Your task to perform on an android device: check the backup settings in the google photos Image 0: 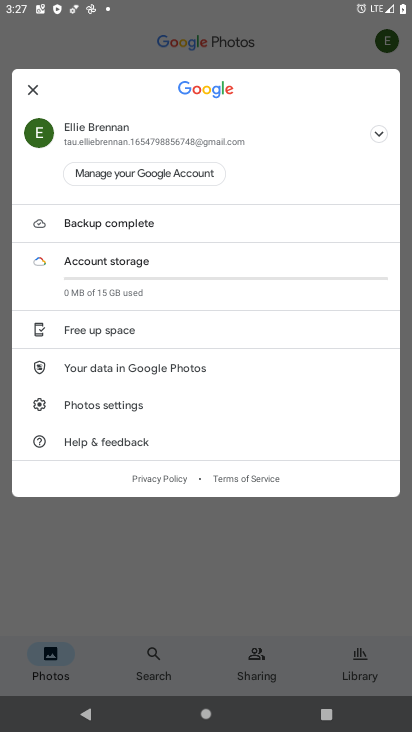
Step 0: press home button
Your task to perform on an android device: check the backup settings in the google photos Image 1: 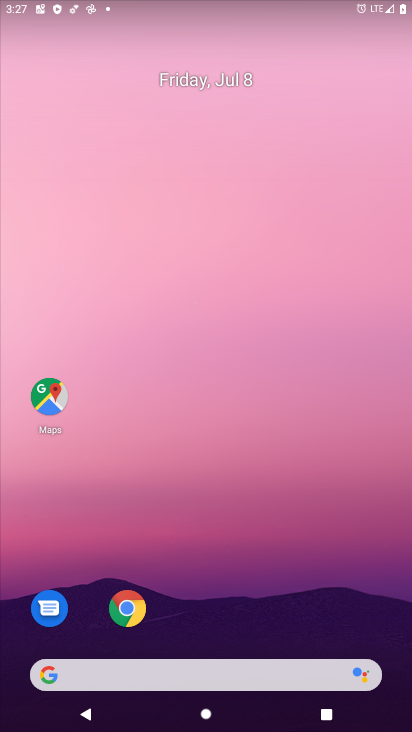
Step 1: drag from (295, 547) to (258, 3)
Your task to perform on an android device: check the backup settings in the google photos Image 2: 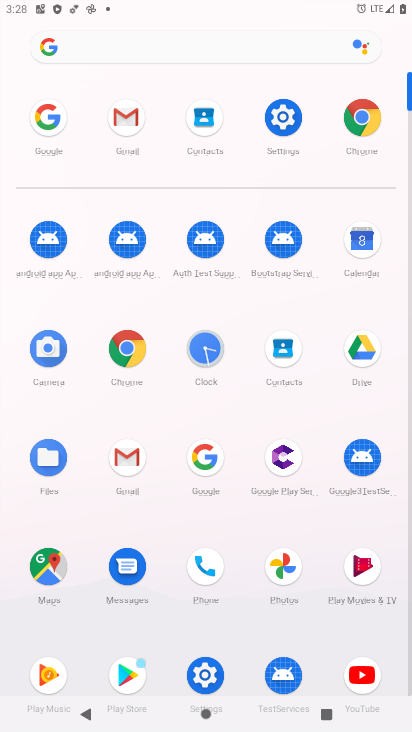
Step 2: click (271, 564)
Your task to perform on an android device: check the backup settings in the google photos Image 3: 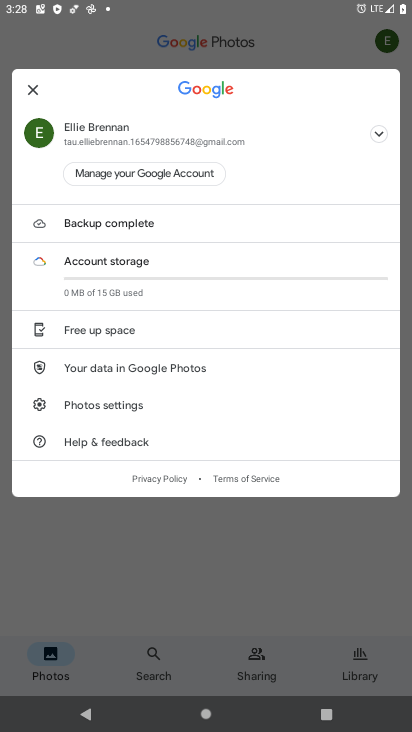
Step 3: click (29, 86)
Your task to perform on an android device: check the backup settings in the google photos Image 4: 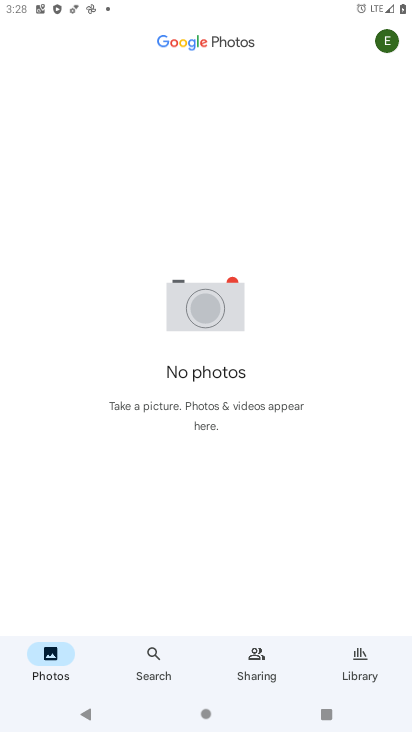
Step 4: click (390, 44)
Your task to perform on an android device: check the backup settings in the google photos Image 5: 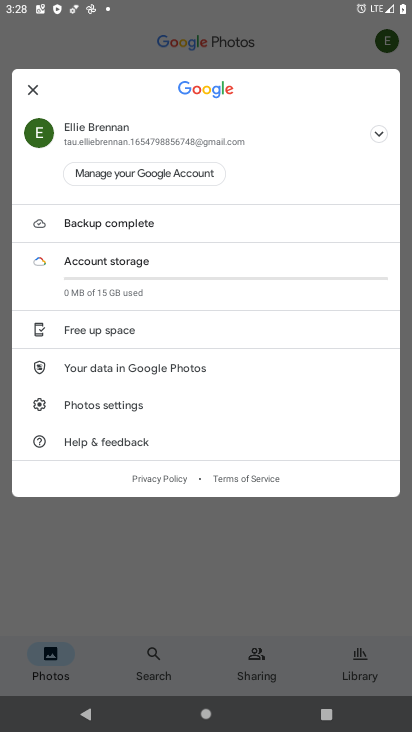
Step 5: click (105, 406)
Your task to perform on an android device: check the backup settings in the google photos Image 6: 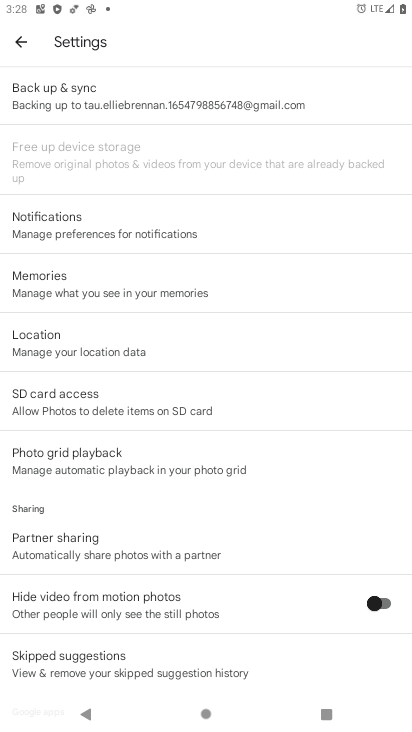
Step 6: click (149, 104)
Your task to perform on an android device: check the backup settings in the google photos Image 7: 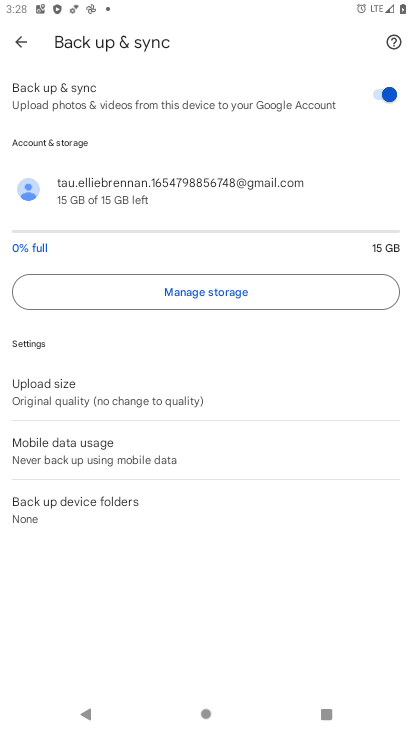
Step 7: task complete